Your task to perform on an android device: Open Reddit.com Image 0: 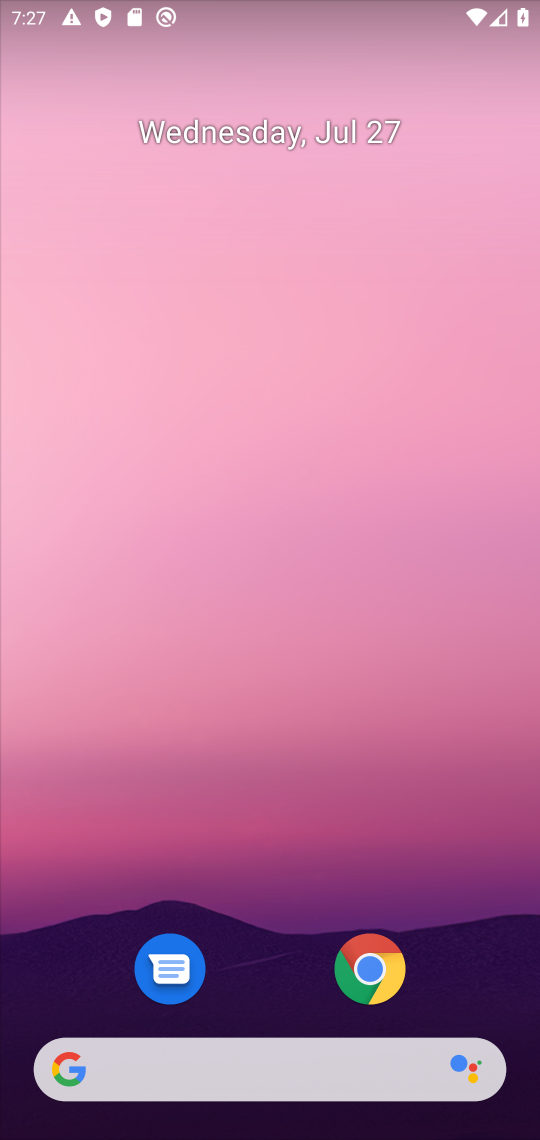
Step 0: drag from (273, 896) to (357, 67)
Your task to perform on an android device: Open Reddit.com Image 1: 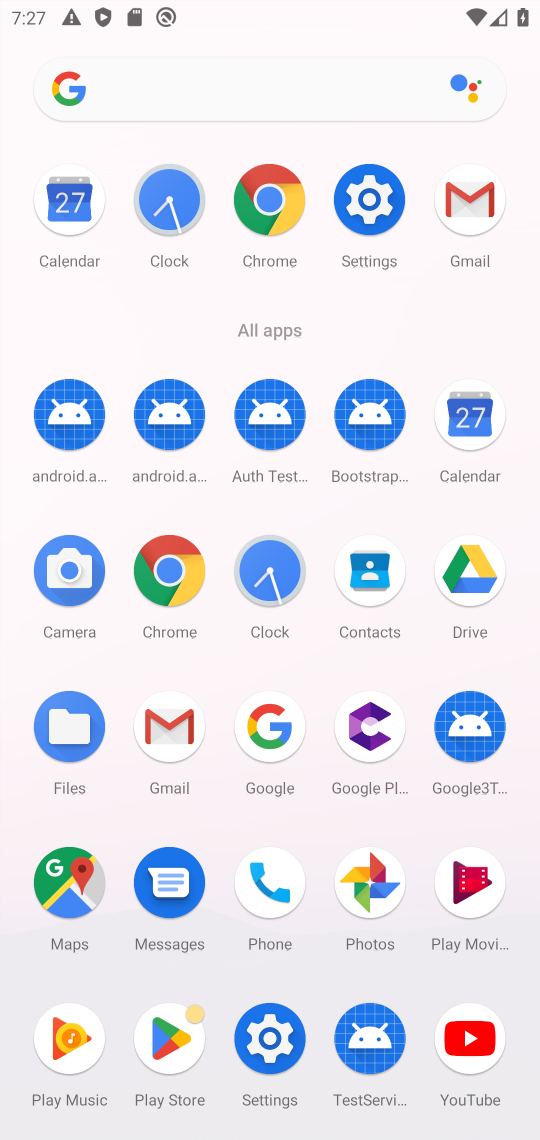
Step 1: click (179, 577)
Your task to perform on an android device: Open Reddit.com Image 2: 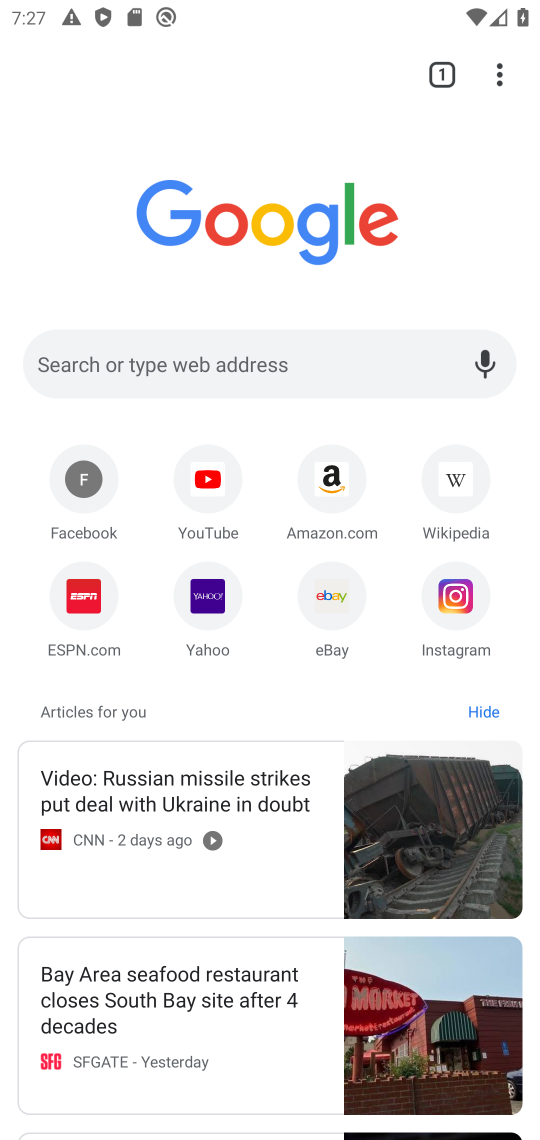
Step 2: click (244, 362)
Your task to perform on an android device: Open Reddit.com Image 3: 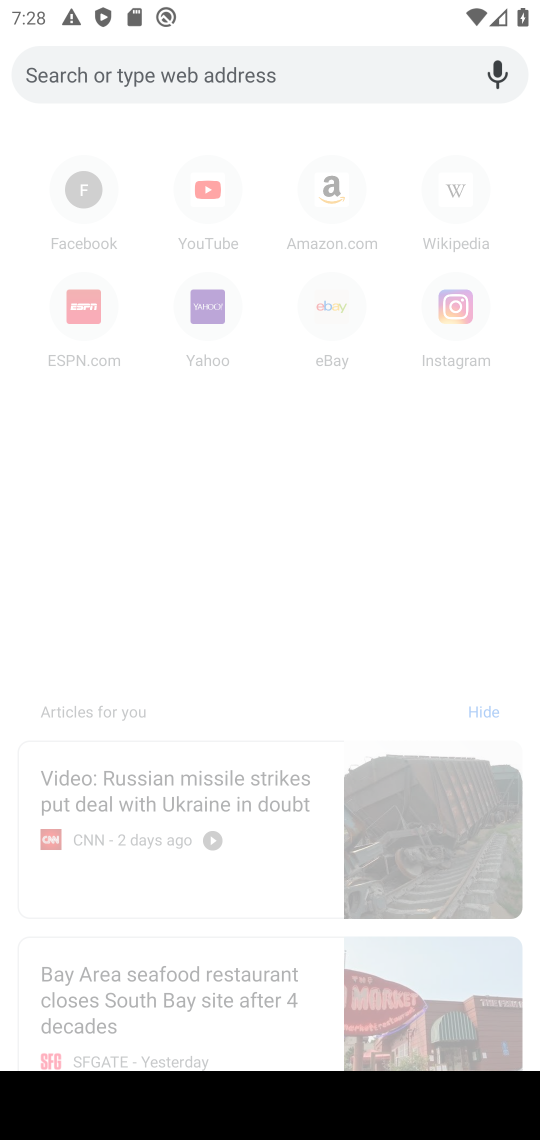
Step 3: type "Reddit.com"
Your task to perform on an android device: Open Reddit.com Image 4: 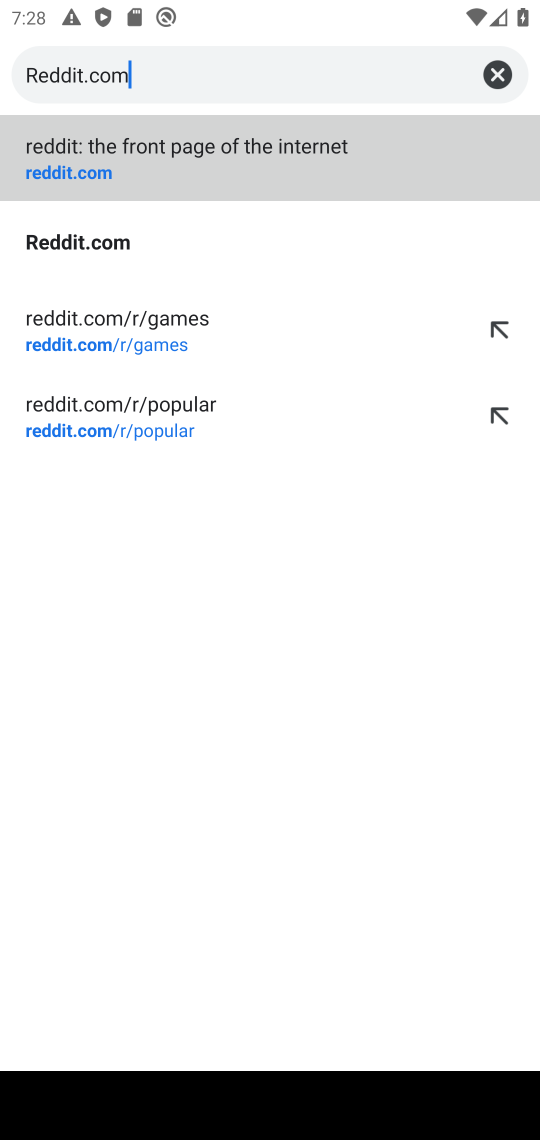
Step 4: type ""
Your task to perform on an android device: Open Reddit.com Image 5: 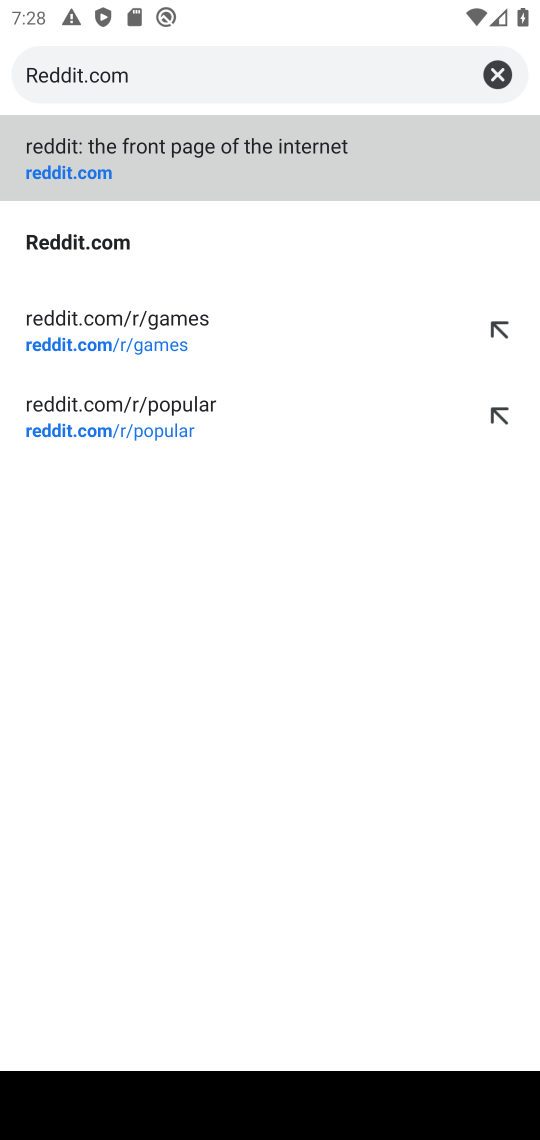
Step 5: click (137, 171)
Your task to perform on an android device: Open Reddit.com Image 6: 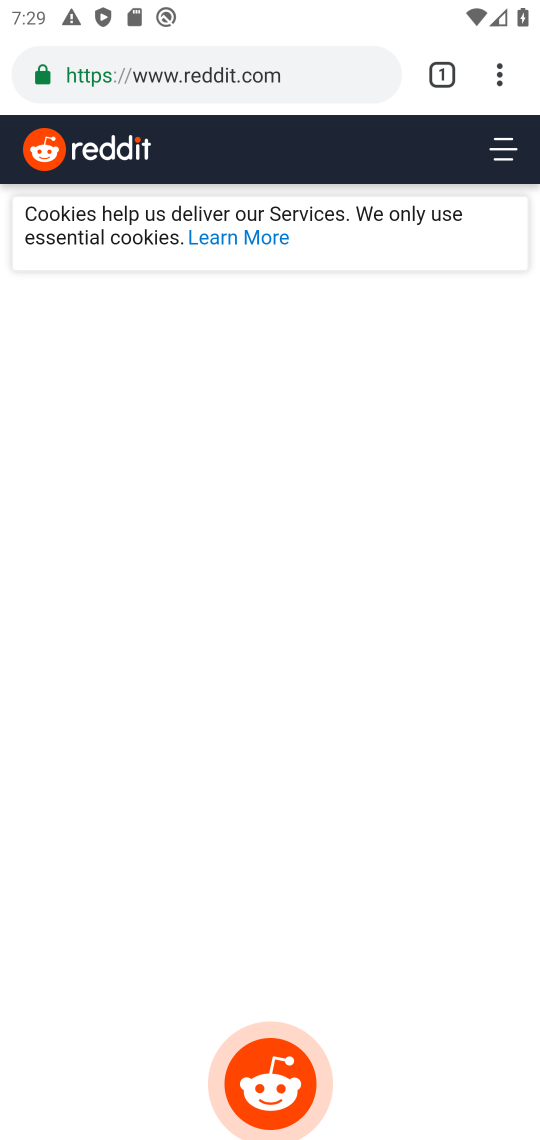
Step 6: task complete